Your task to perform on an android device: set the stopwatch Image 0: 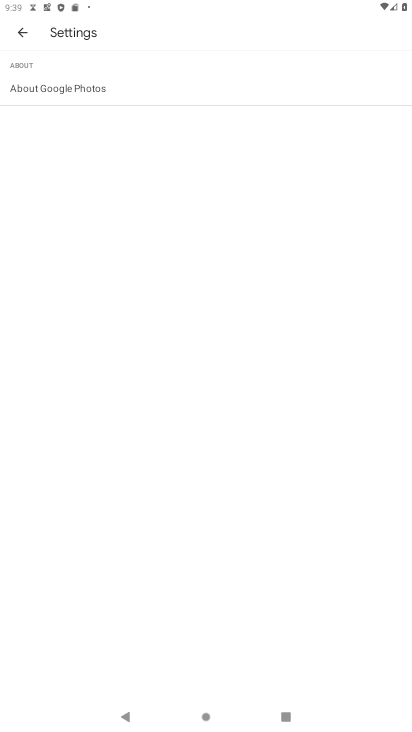
Step 0: press home button
Your task to perform on an android device: set the stopwatch Image 1: 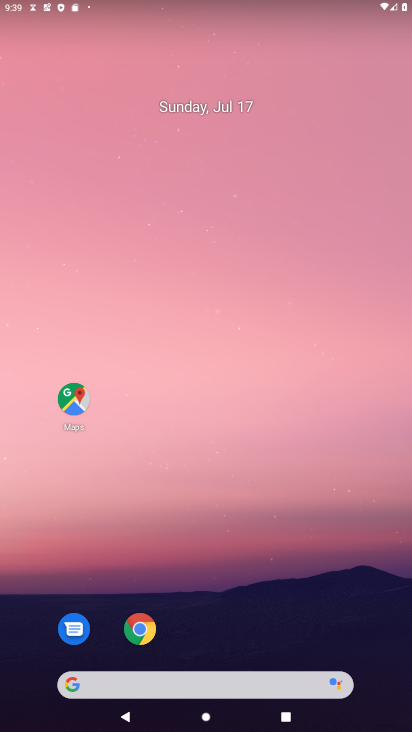
Step 1: drag from (226, 694) to (224, 145)
Your task to perform on an android device: set the stopwatch Image 2: 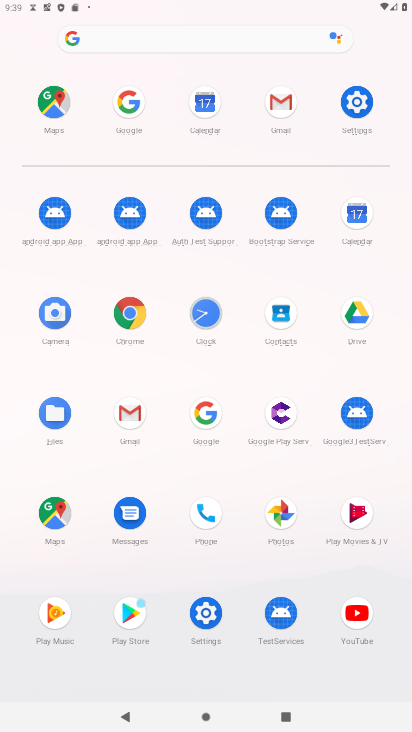
Step 2: click (208, 314)
Your task to perform on an android device: set the stopwatch Image 3: 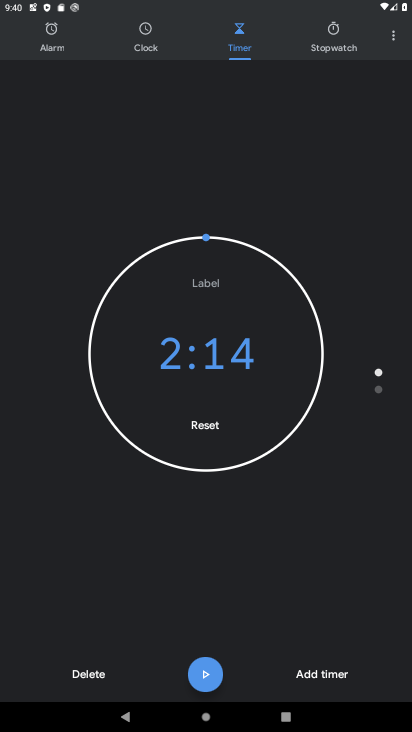
Step 3: click (338, 34)
Your task to perform on an android device: set the stopwatch Image 4: 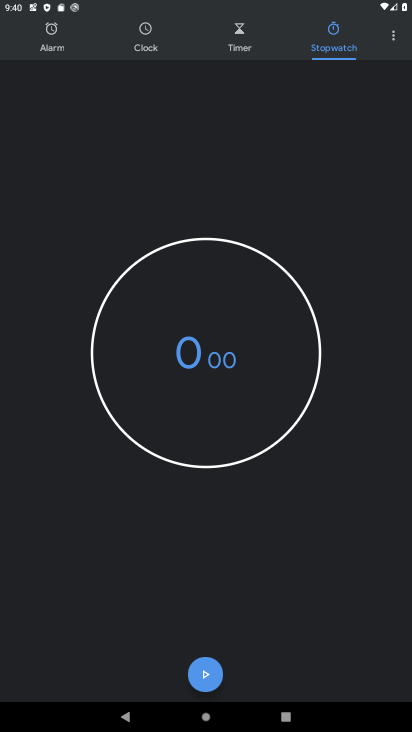
Step 4: click (203, 392)
Your task to perform on an android device: set the stopwatch Image 5: 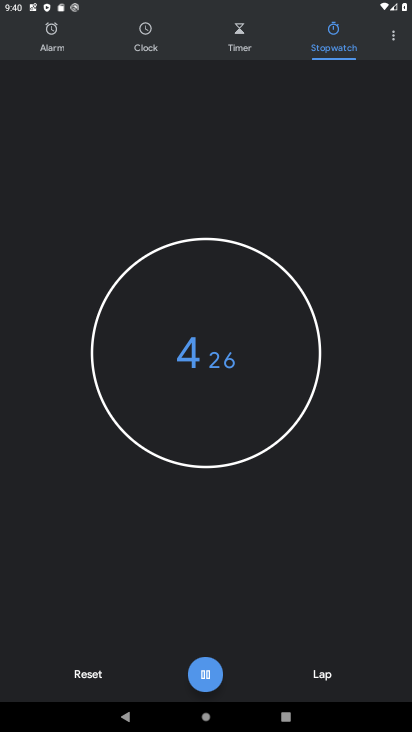
Step 5: type "7876"
Your task to perform on an android device: set the stopwatch Image 6: 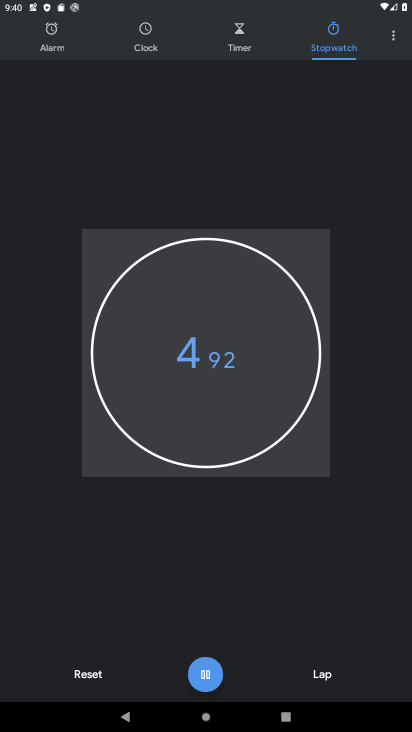
Step 6: type ""
Your task to perform on an android device: set the stopwatch Image 7: 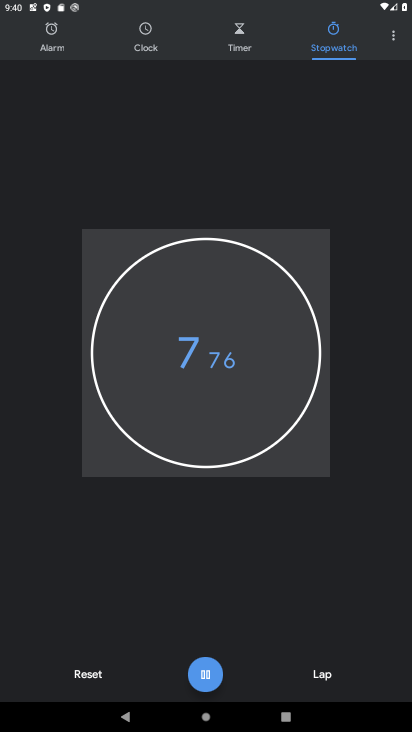
Step 7: task complete